Your task to perform on an android device: Open maps Image 0: 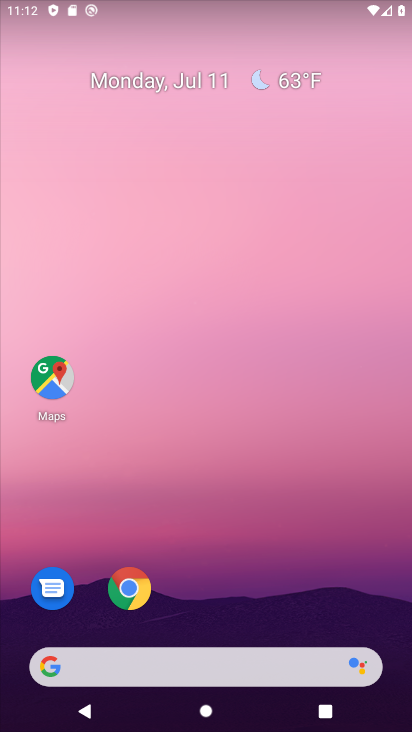
Step 0: drag from (262, 697) to (291, 256)
Your task to perform on an android device: Open maps Image 1: 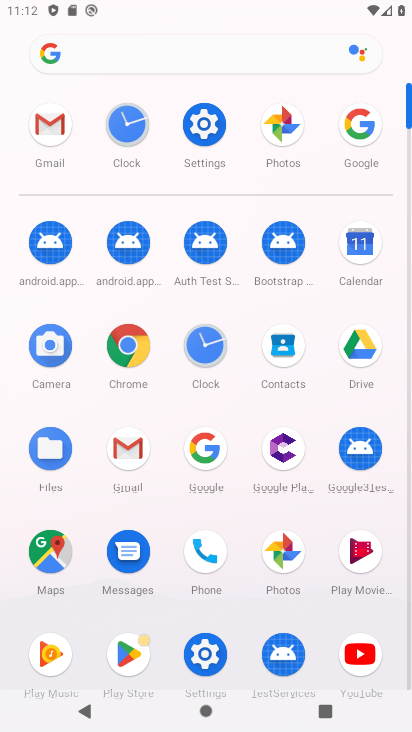
Step 1: click (48, 544)
Your task to perform on an android device: Open maps Image 2: 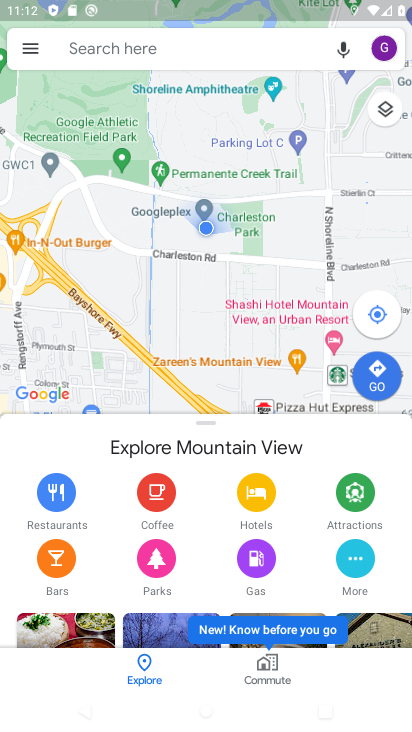
Step 2: task complete